Your task to perform on an android device: turn off data saver in the chrome app Image 0: 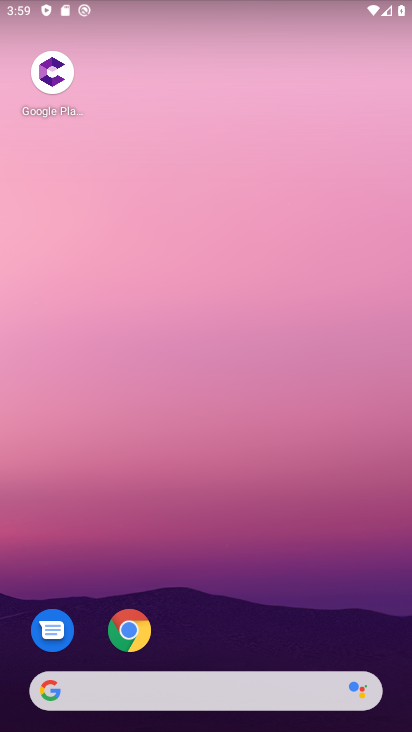
Step 0: click (130, 612)
Your task to perform on an android device: turn off data saver in the chrome app Image 1: 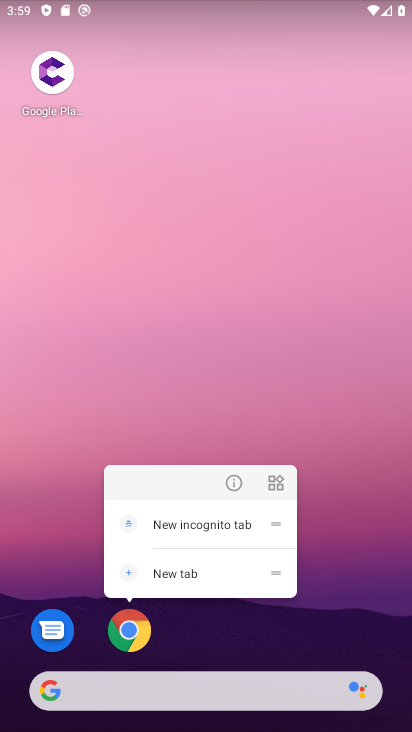
Step 1: click (123, 621)
Your task to perform on an android device: turn off data saver in the chrome app Image 2: 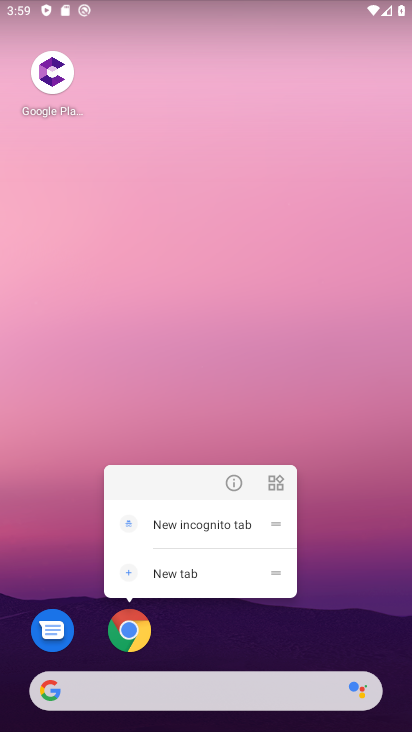
Step 2: click (125, 637)
Your task to perform on an android device: turn off data saver in the chrome app Image 3: 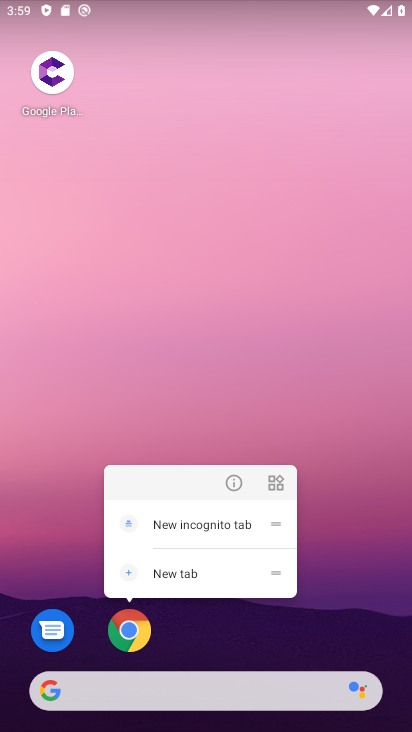
Step 3: click (150, 637)
Your task to perform on an android device: turn off data saver in the chrome app Image 4: 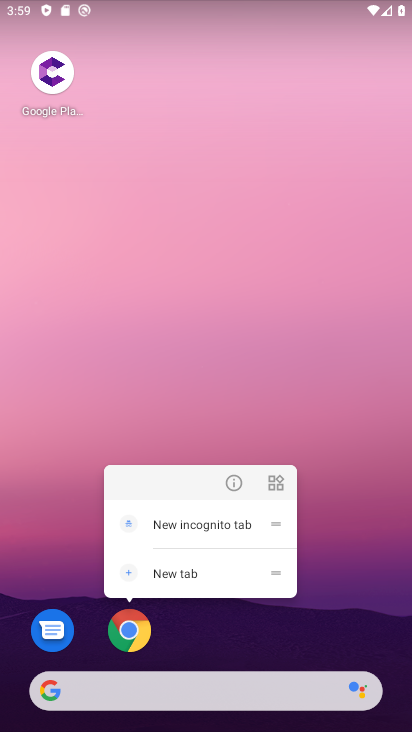
Step 4: click (136, 632)
Your task to perform on an android device: turn off data saver in the chrome app Image 5: 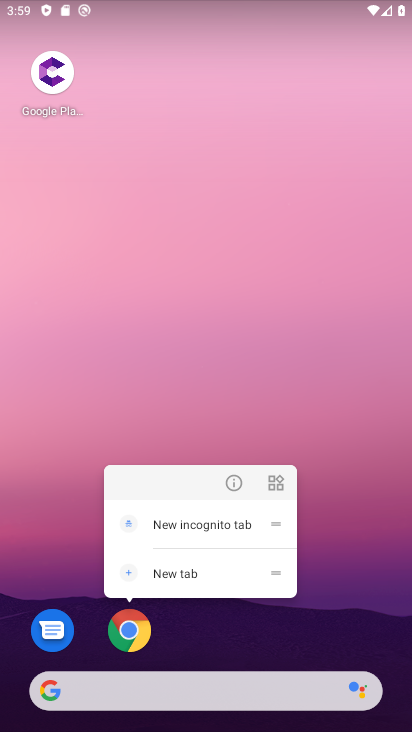
Step 5: click (136, 632)
Your task to perform on an android device: turn off data saver in the chrome app Image 6: 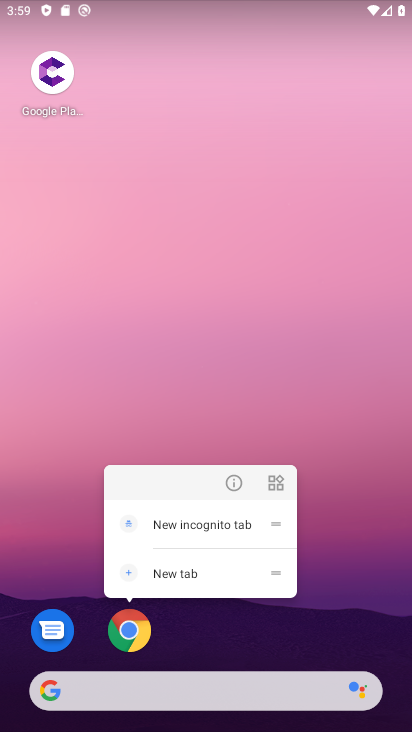
Step 6: click (137, 623)
Your task to perform on an android device: turn off data saver in the chrome app Image 7: 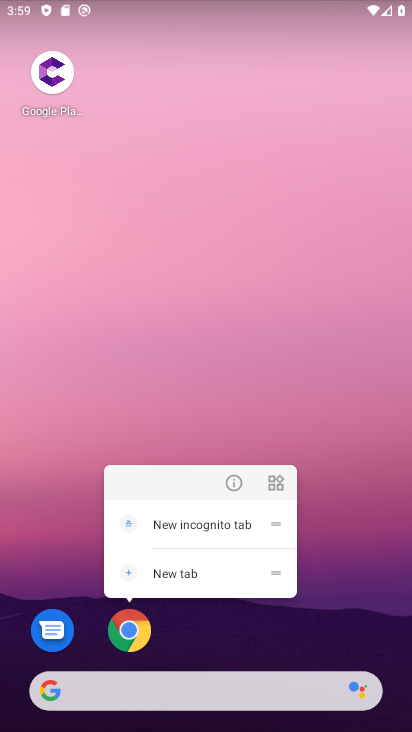
Step 7: click (137, 623)
Your task to perform on an android device: turn off data saver in the chrome app Image 8: 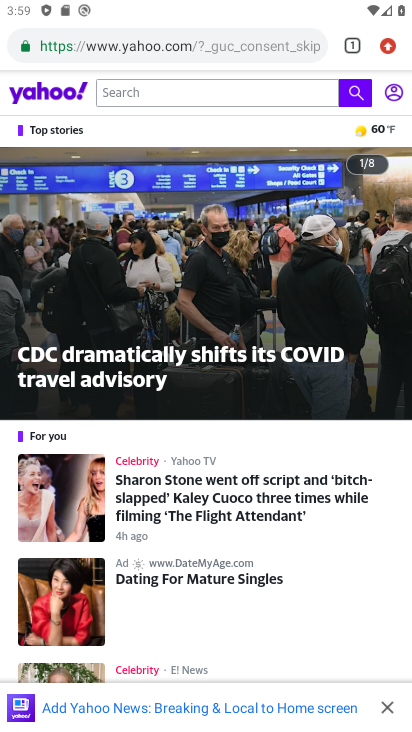
Step 8: drag from (386, 50) to (239, 603)
Your task to perform on an android device: turn off data saver in the chrome app Image 9: 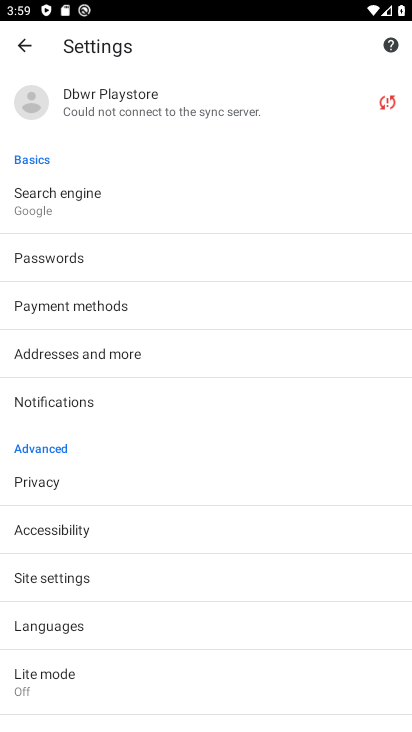
Step 9: click (74, 669)
Your task to perform on an android device: turn off data saver in the chrome app Image 10: 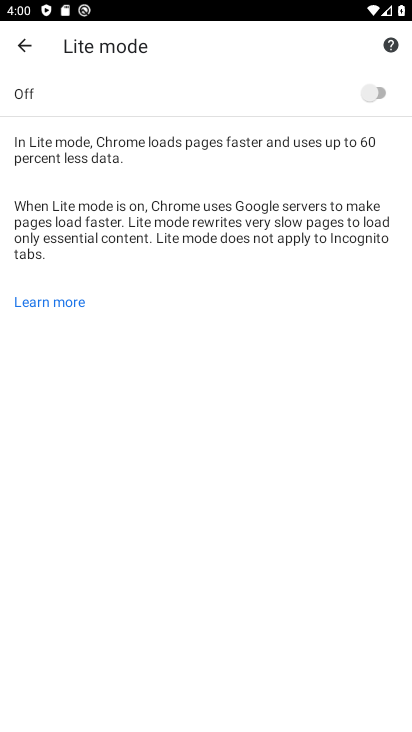
Step 10: task complete